Your task to perform on an android device: Check the weather Image 0: 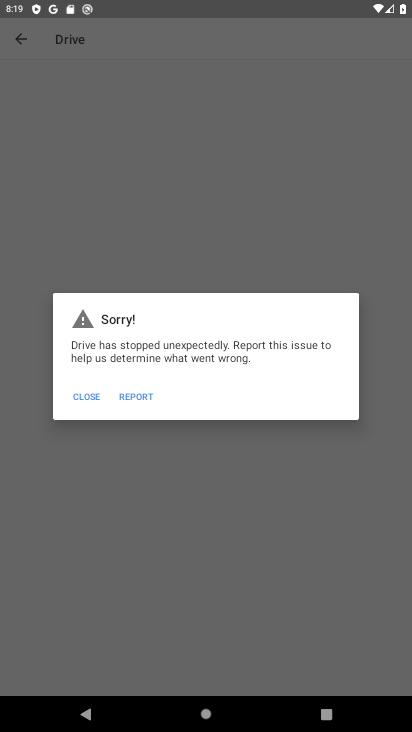
Step 0: press home button
Your task to perform on an android device: Check the weather Image 1: 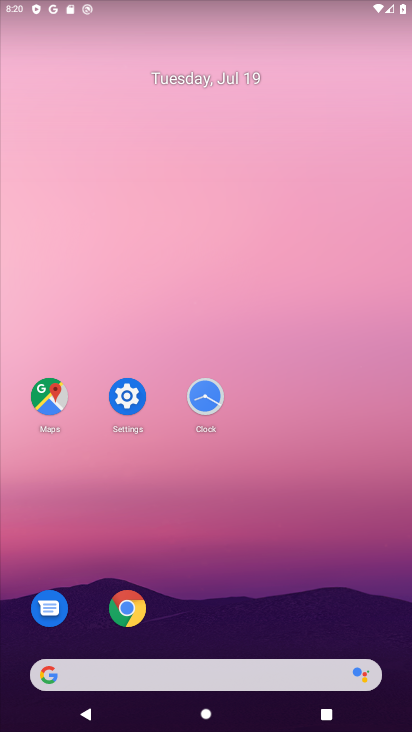
Step 1: drag from (2, 265) to (409, 265)
Your task to perform on an android device: Check the weather Image 2: 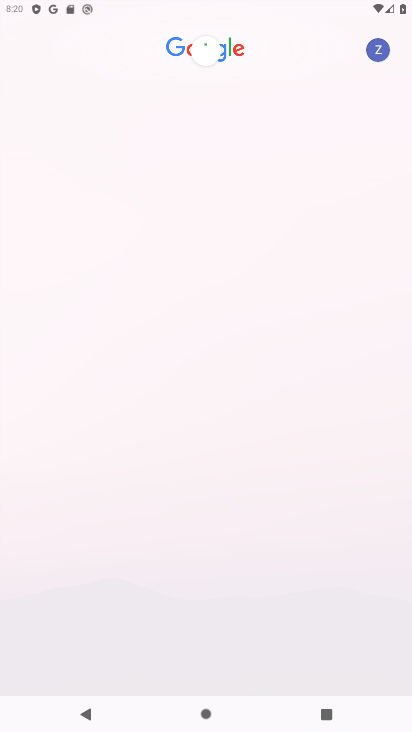
Step 2: press home button
Your task to perform on an android device: Check the weather Image 3: 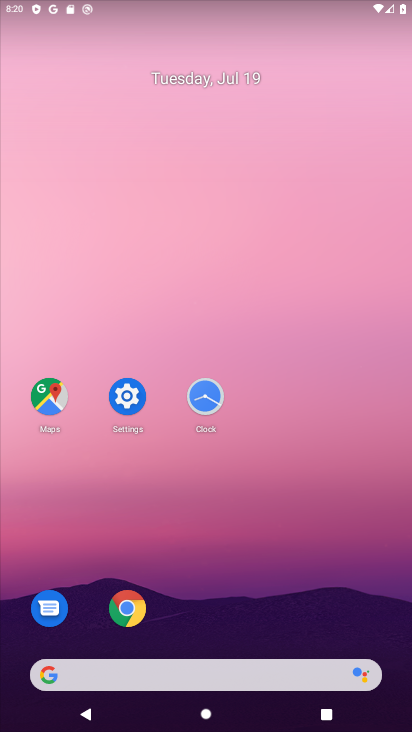
Step 3: drag from (0, 260) to (411, 263)
Your task to perform on an android device: Check the weather Image 4: 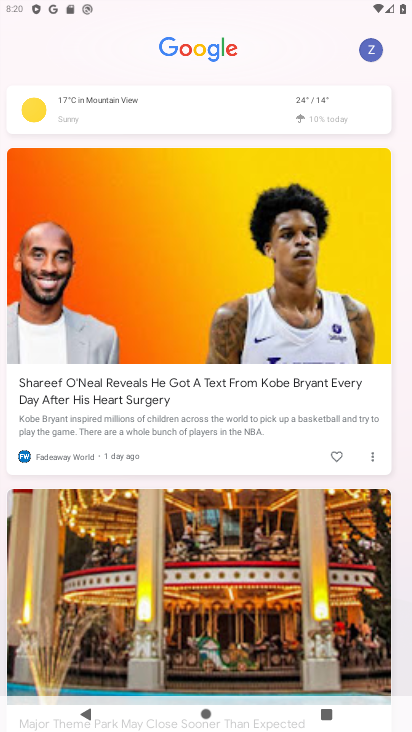
Step 4: click (285, 95)
Your task to perform on an android device: Check the weather Image 5: 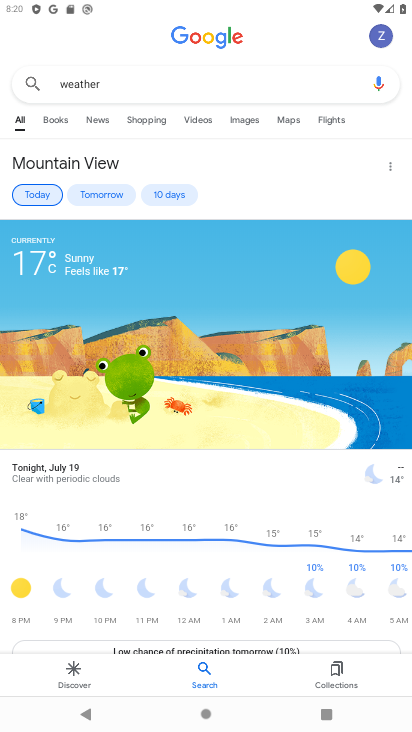
Step 5: task complete